Your task to perform on an android device: add a label to a message in the gmail app Image 0: 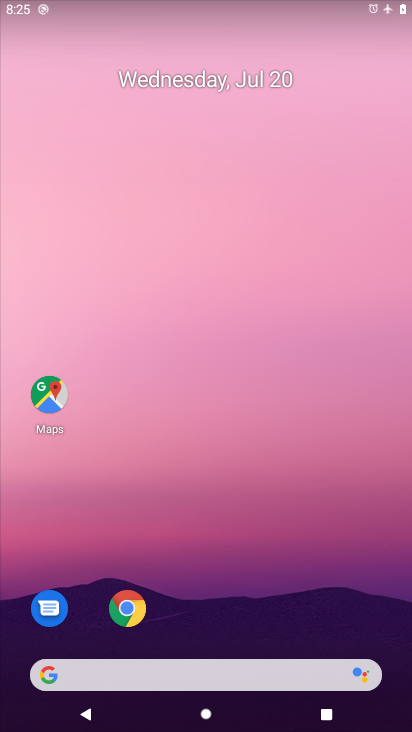
Step 0: drag from (196, 624) to (236, 133)
Your task to perform on an android device: add a label to a message in the gmail app Image 1: 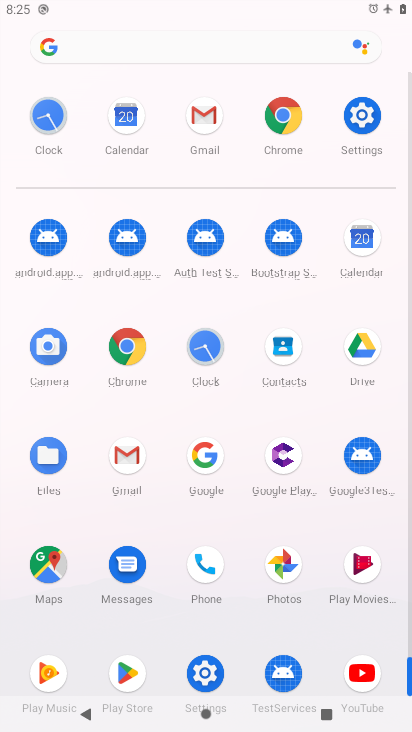
Step 1: click (133, 476)
Your task to perform on an android device: add a label to a message in the gmail app Image 2: 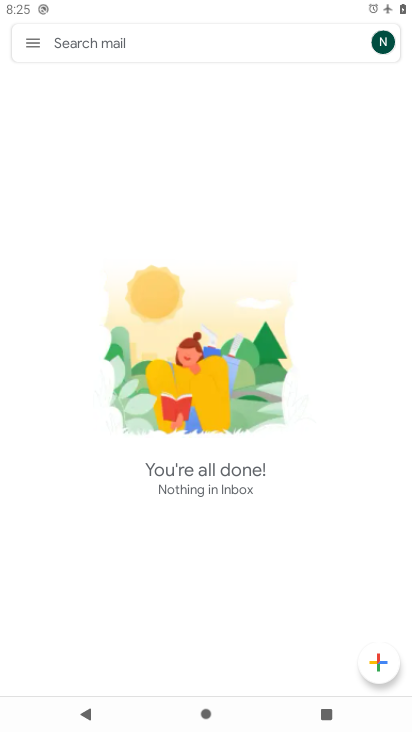
Step 2: click (25, 40)
Your task to perform on an android device: add a label to a message in the gmail app Image 3: 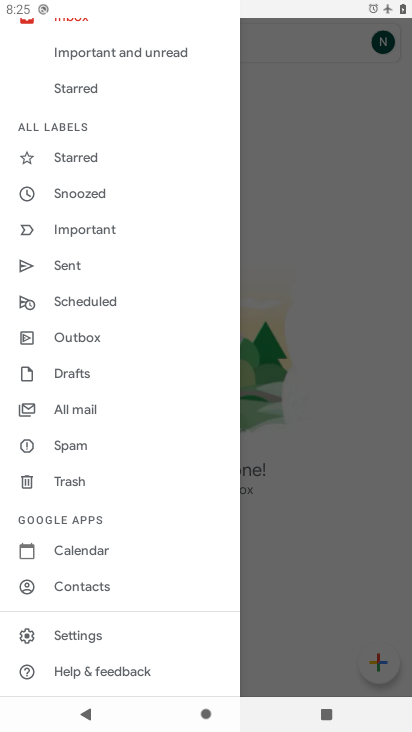
Step 3: drag from (125, 206) to (142, 635)
Your task to perform on an android device: add a label to a message in the gmail app Image 4: 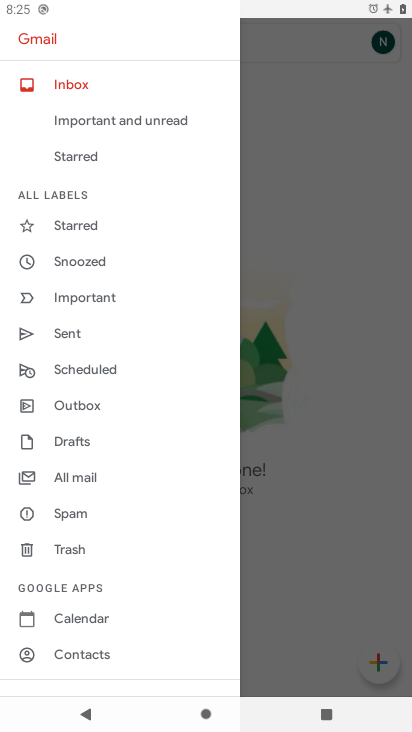
Step 4: click (344, 229)
Your task to perform on an android device: add a label to a message in the gmail app Image 5: 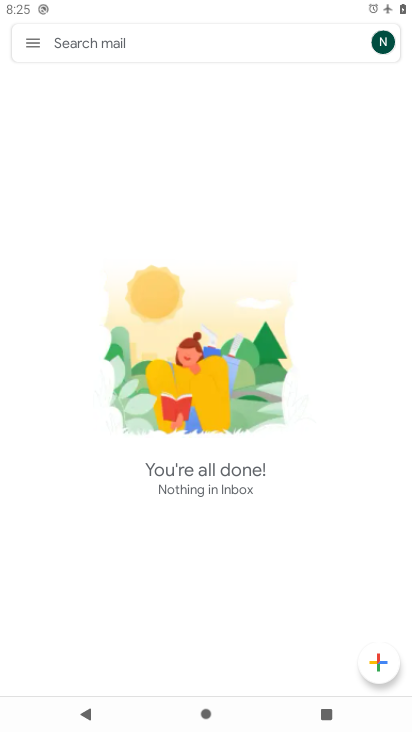
Step 5: task complete